Your task to perform on an android device: Open settings Image 0: 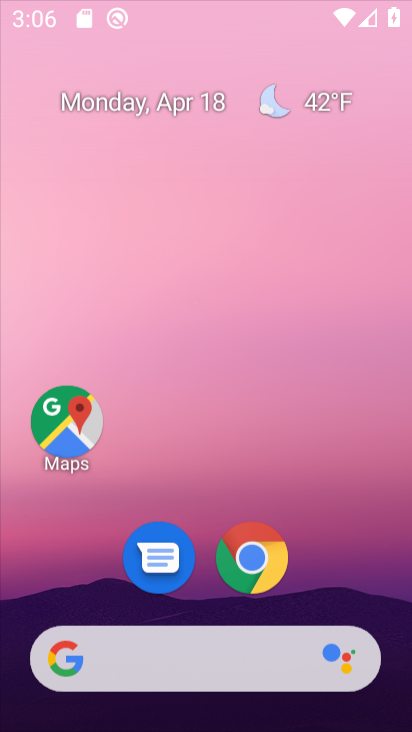
Step 0: drag from (212, 551) to (190, 83)
Your task to perform on an android device: Open settings Image 1: 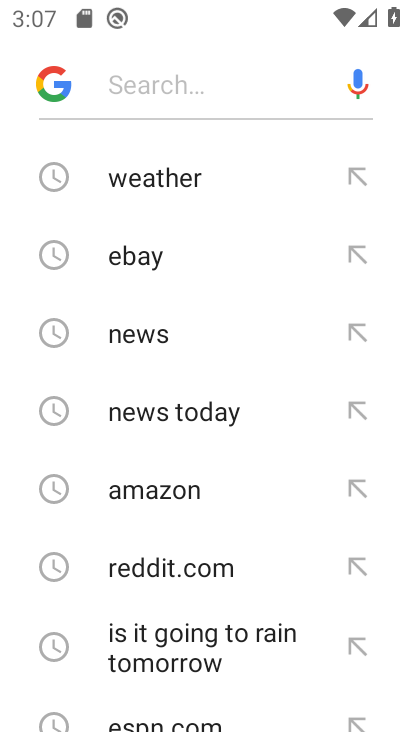
Step 1: press back button
Your task to perform on an android device: Open settings Image 2: 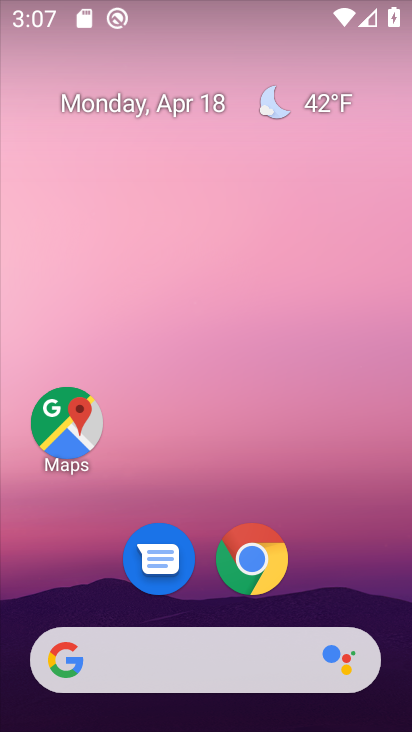
Step 2: drag from (177, 431) to (190, 180)
Your task to perform on an android device: Open settings Image 3: 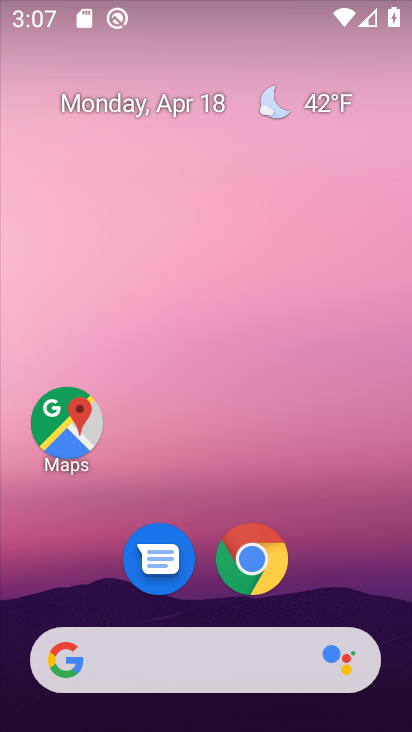
Step 3: drag from (187, 479) to (197, 223)
Your task to perform on an android device: Open settings Image 4: 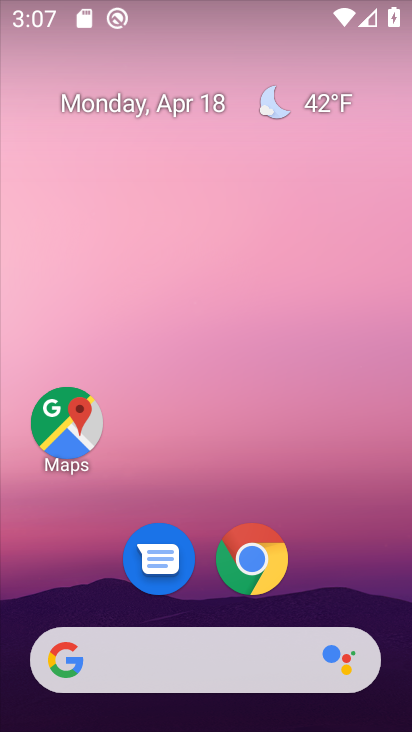
Step 4: drag from (240, 615) to (287, 174)
Your task to perform on an android device: Open settings Image 5: 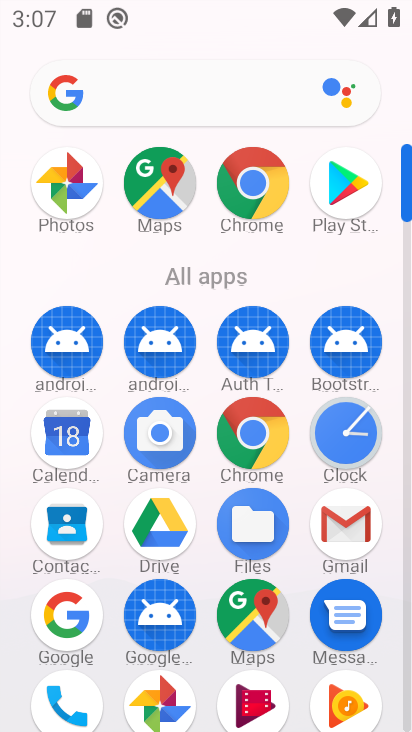
Step 5: drag from (225, 599) to (237, 364)
Your task to perform on an android device: Open settings Image 6: 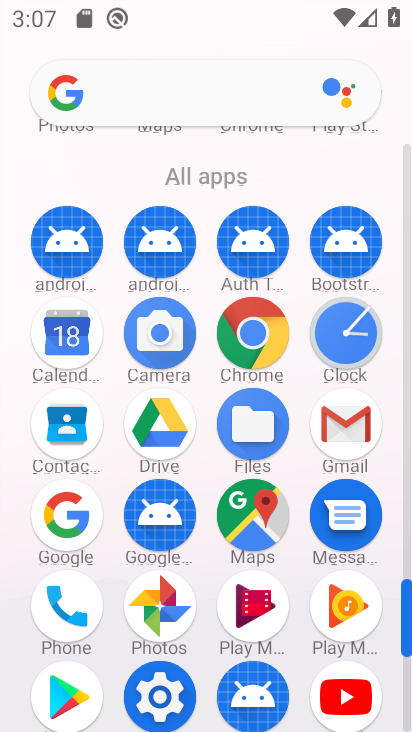
Step 6: click (145, 680)
Your task to perform on an android device: Open settings Image 7: 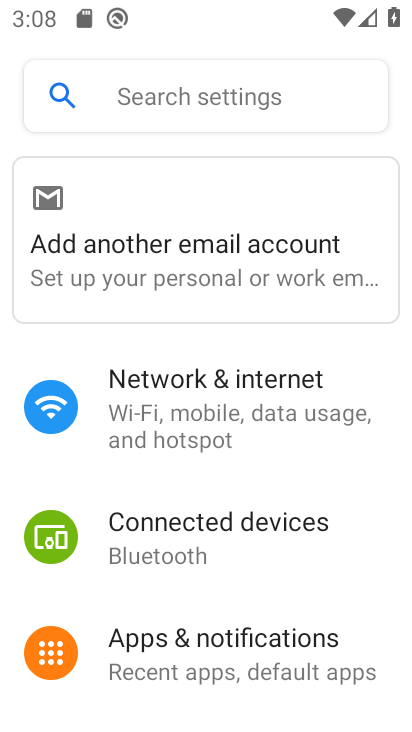
Step 7: task complete